Your task to perform on an android device: turn notification dots on Image 0: 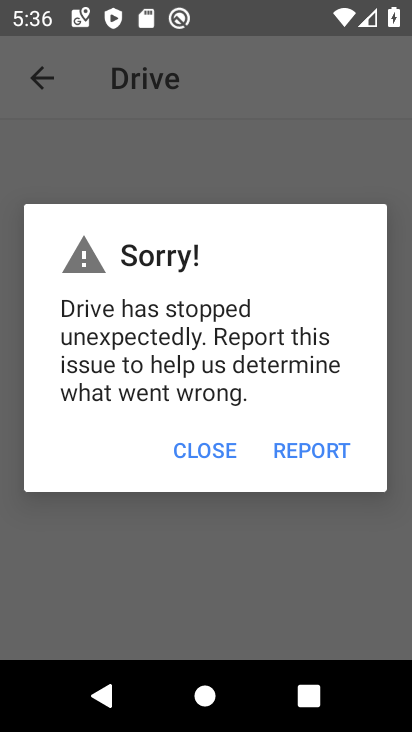
Step 0: press home button
Your task to perform on an android device: turn notification dots on Image 1: 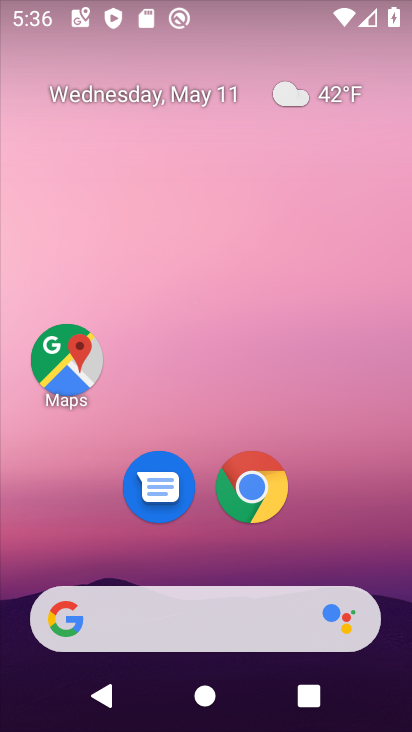
Step 1: drag from (236, 562) to (265, 9)
Your task to perform on an android device: turn notification dots on Image 2: 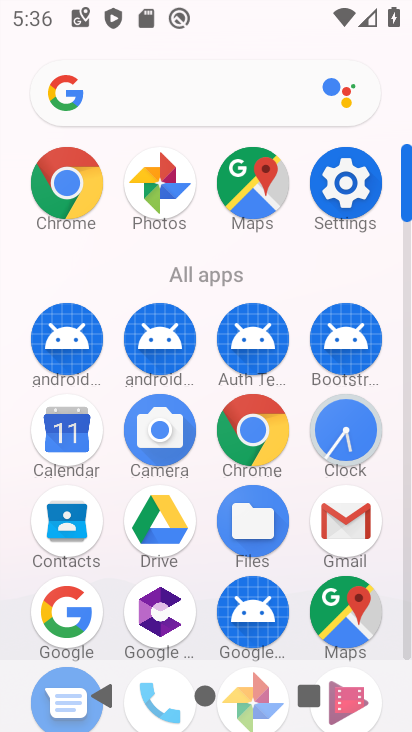
Step 2: click (329, 203)
Your task to perform on an android device: turn notification dots on Image 3: 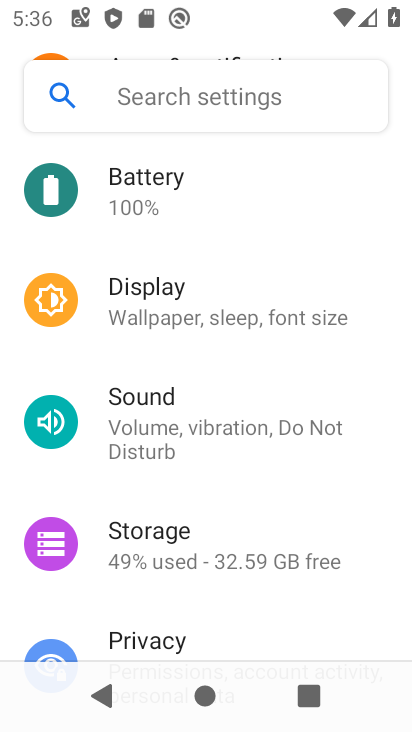
Step 3: drag from (221, 225) to (213, 491)
Your task to perform on an android device: turn notification dots on Image 4: 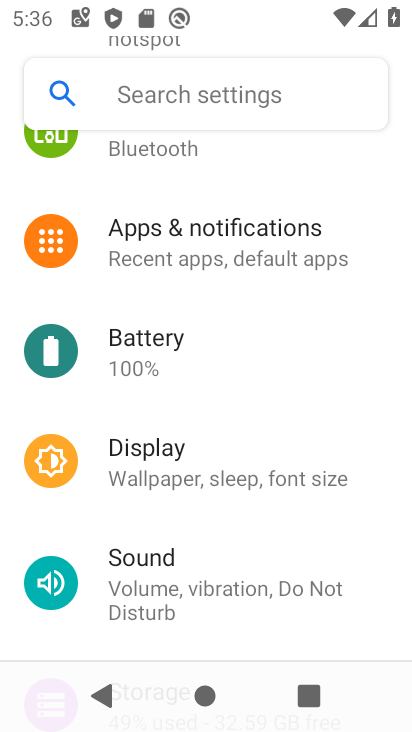
Step 4: drag from (217, 342) to (186, 729)
Your task to perform on an android device: turn notification dots on Image 5: 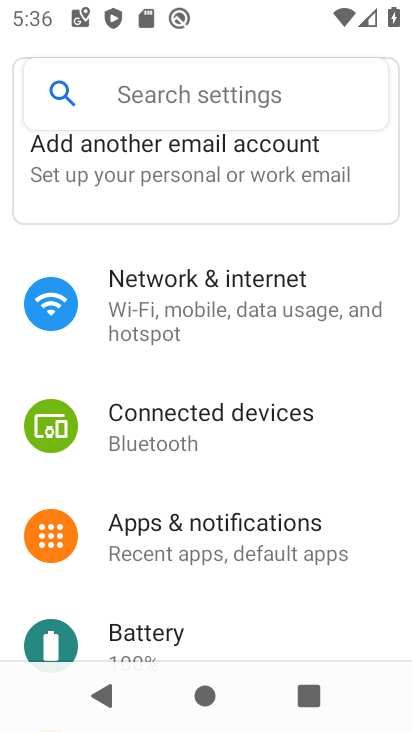
Step 5: click (230, 531)
Your task to perform on an android device: turn notification dots on Image 6: 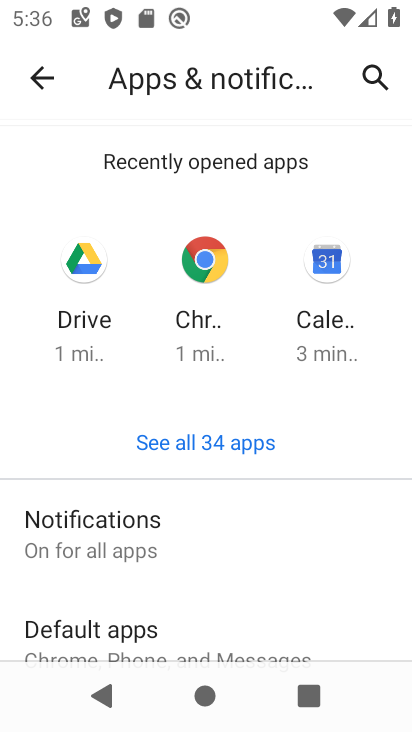
Step 6: drag from (191, 583) to (178, 337)
Your task to perform on an android device: turn notification dots on Image 7: 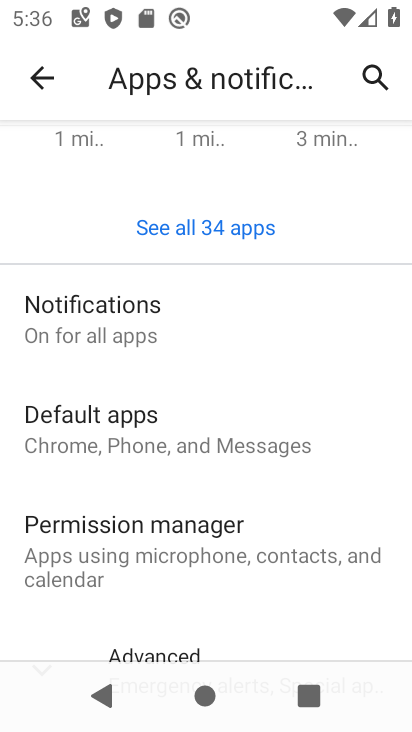
Step 7: click (125, 351)
Your task to perform on an android device: turn notification dots on Image 8: 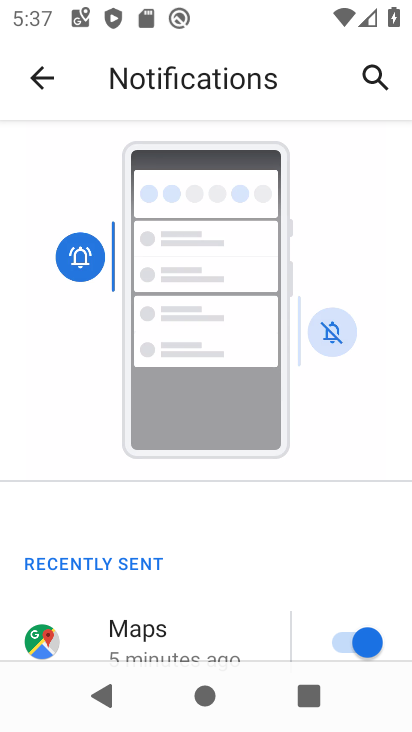
Step 8: drag from (167, 618) to (237, 203)
Your task to perform on an android device: turn notification dots on Image 9: 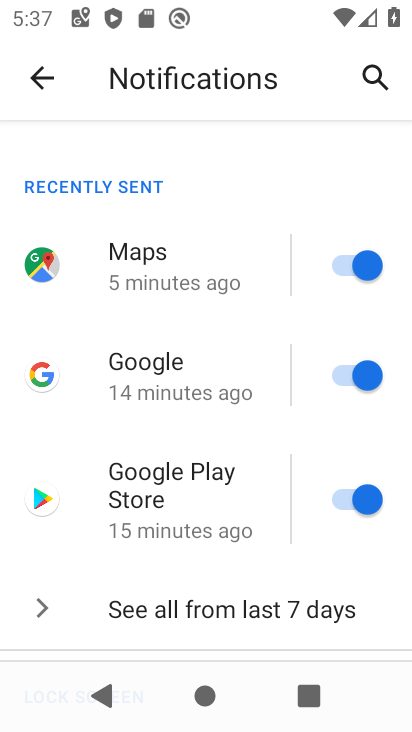
Step 9: drag from (160, 532) to (228, 135)
Your task to perform on an android device: turn notification dots on Image 10: 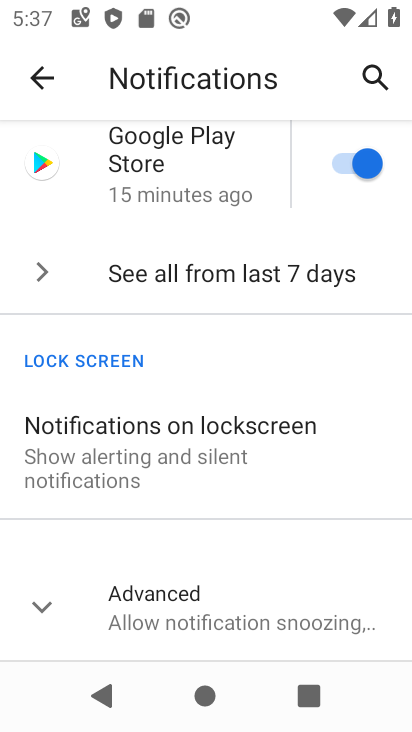
Step 10: click (160, 629)
Your task to perform on an android device: turn notification dots on Image 11: 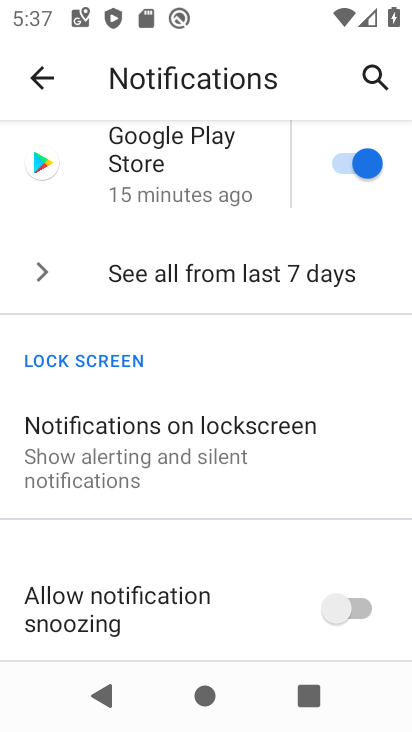
Step 11: task complete